Your task to perform on an android device: turn on the 12-hour format for clock Image 0: 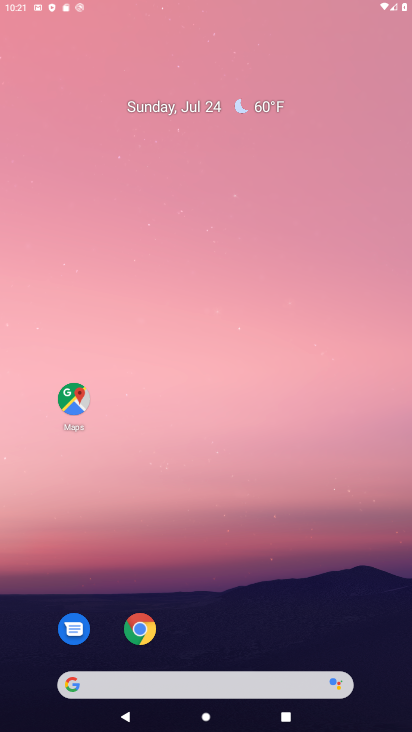
Step 0: drag from (237, 488) to (245, 194)
Your task to perform on an android device: turn on the 12-hour format for clock Image 1: 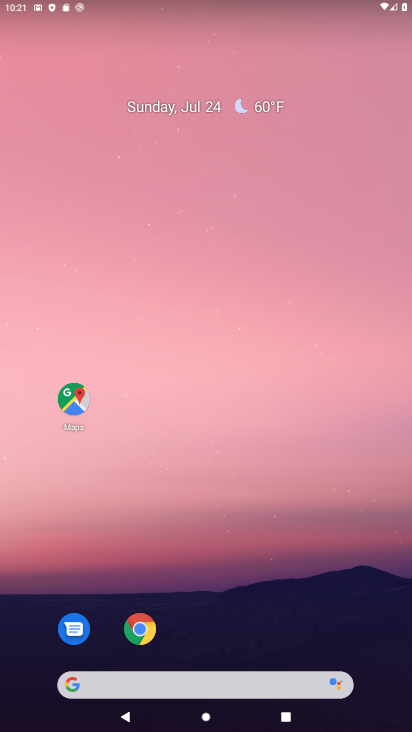
Step 1: drag from (256, 685) to (203, 241)
Your task to perform on an android device: turn on the 12-hour format for clock Image 2: 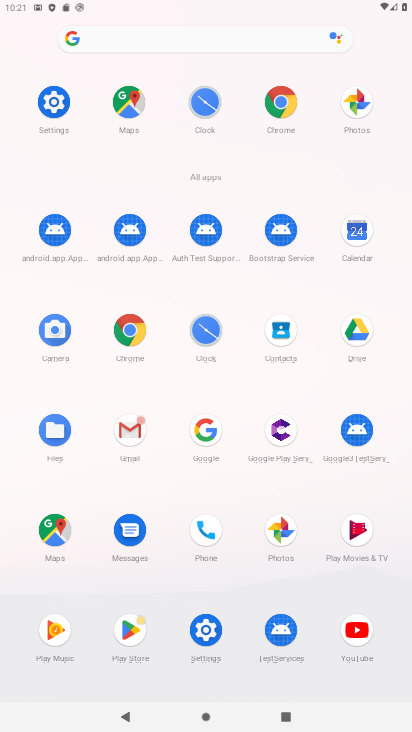
Step 2: click (202, 336)
Your task to perform on an android device: turn on the 12-hour format for clock Image 3: 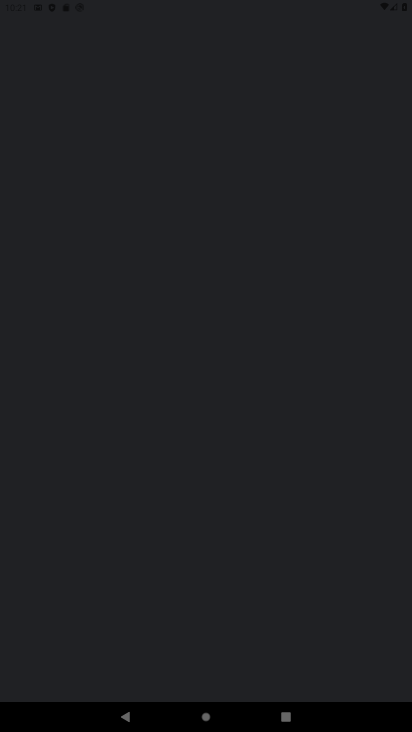
Step 3: click (202, 330)
Your task to perform on an android device: turn on the 12-hour format for clock Image 4: 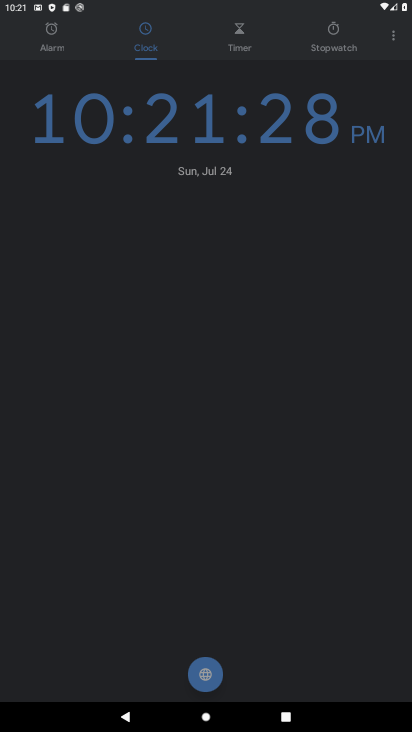
Step 4: click (202, 328)
Your task to perform on an android device: turn on the 12-hour format for clock Image 5: 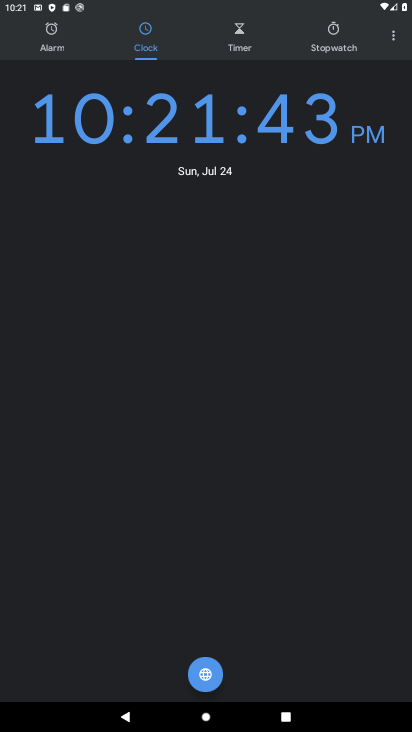
Step 5: drag from (386, 31) to (346, 113)
Your task to perform on an android device: turn on the 12-hour format for clock Image 6: 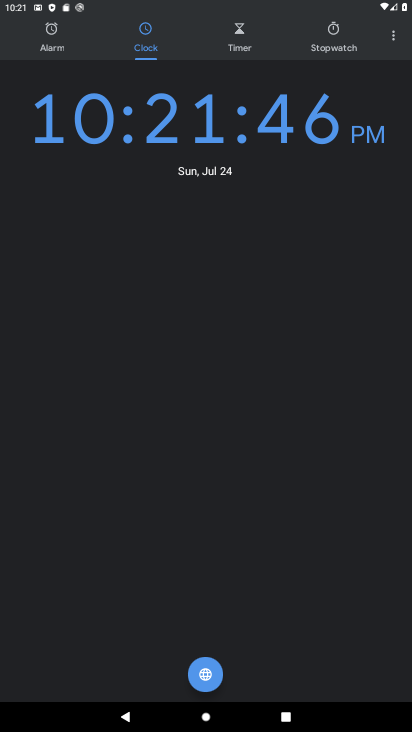
Step 6: click (307, 62)
Your task to perform on an android device: turn on the 12-hour format for clock Image 7: 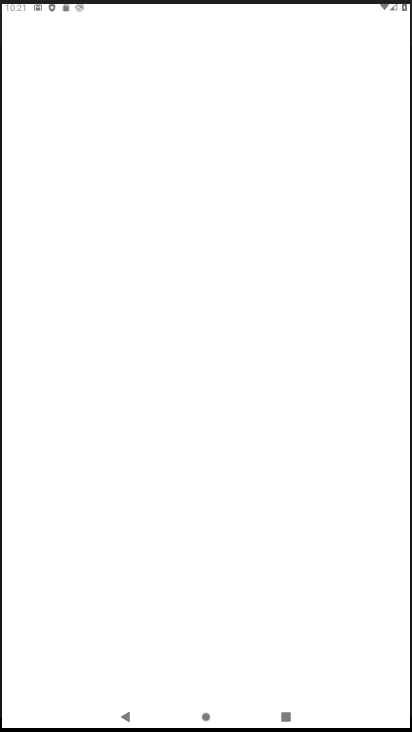
Step 7: click (389, 36)
Your task to perform on an android device: turn on the 12-hour format for clock Image 8: 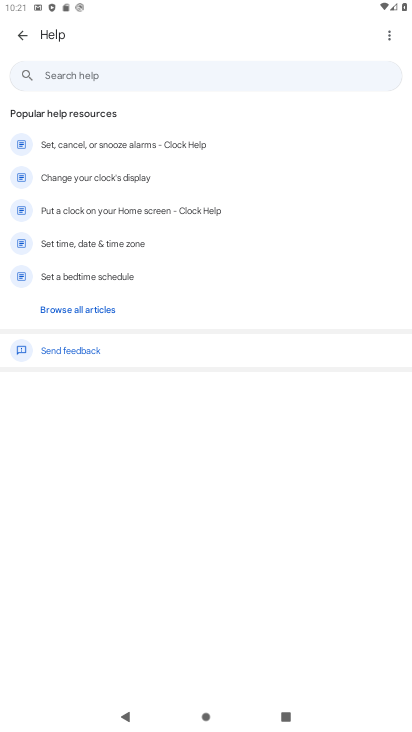
Step 8: click (22, 43)
Your task to perform on an android device: turn on the 12-hour format for clock Image 9: 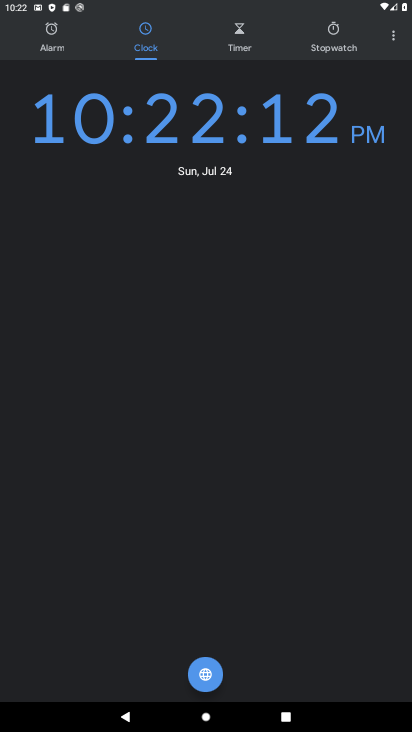
Step 9: click (401, 34)
Your task to perform on an android device: turn on the 12-hour format for clock Image 10: 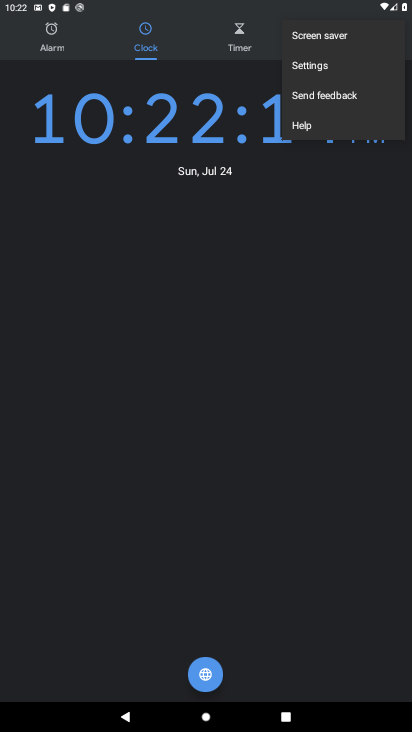
Step 10: click (310, 70)
Your task to perform on an android device: turn on the 12-hour format for clock Image 11: 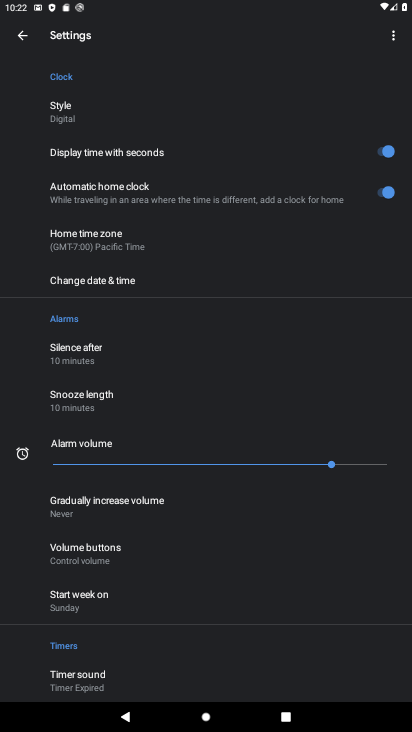
Step 11: click (93, 279)
Your task to perform on an android device: turn on the 12-hour format for clock Image 12: 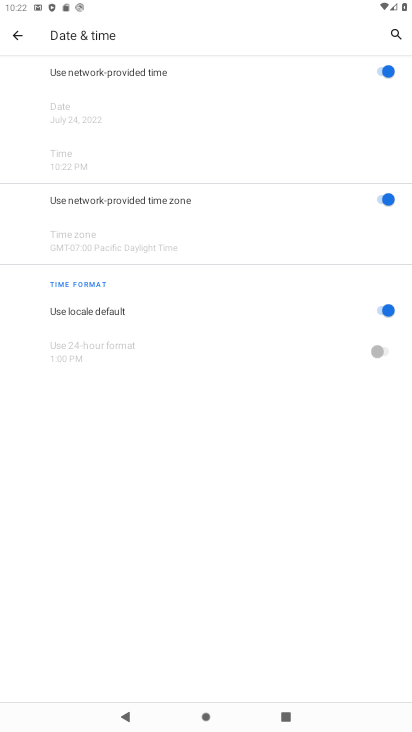
Step 12: task complete